Your task to perform on an android device: Open Yahoo.com Image 0: 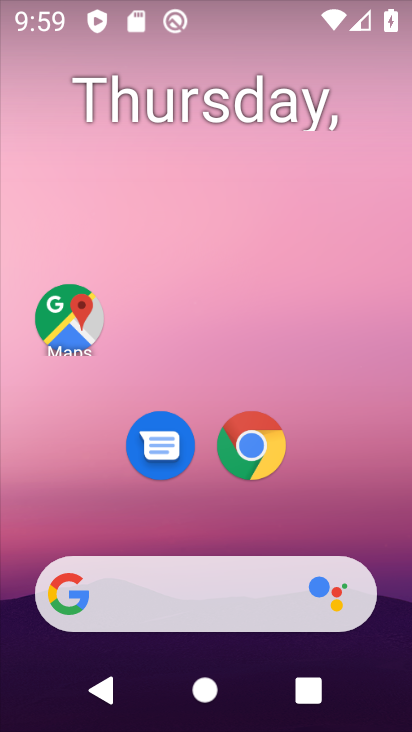
Step 0: click (241, 441)
Your task to perform on an android device: Open Yahoo.com Image 1: 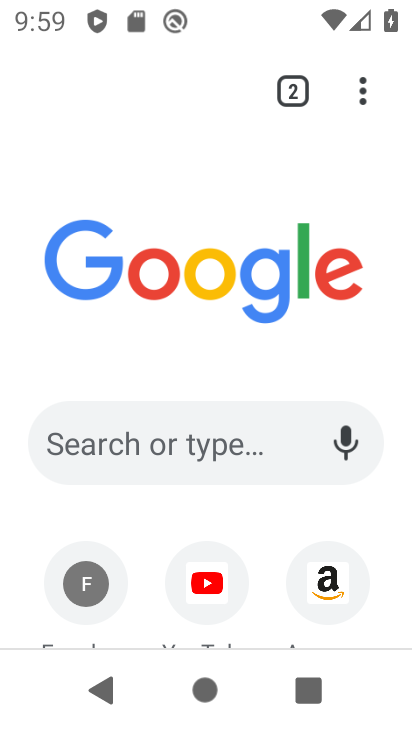
Step 1: drag from (224, 547) to (274, 193)
Your task to perform on an android device: Open Yahoo.com Image 2: 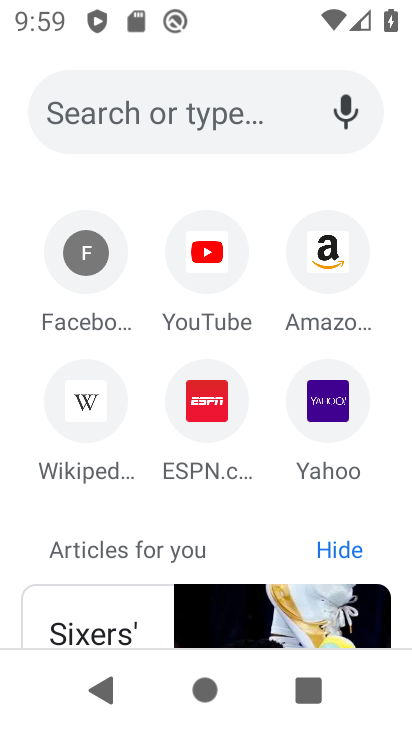
Step 2: click (308, 395)
Your task to perform on an android device: Open Yahoo.com Image 3: 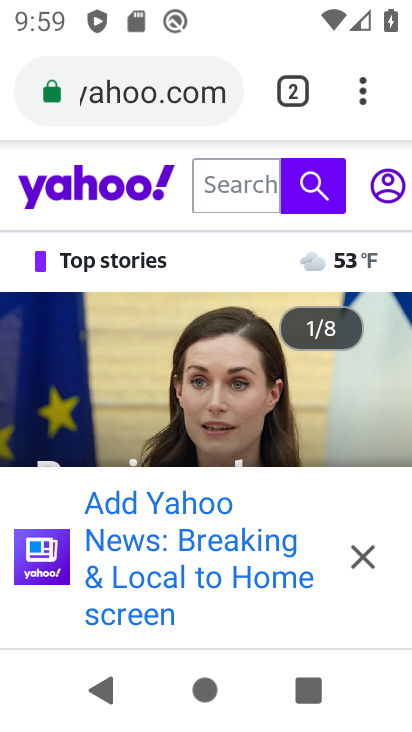
Step 3: click (360, 554)
Your task to perform on an android device: Open Yahoo.com Image 4: 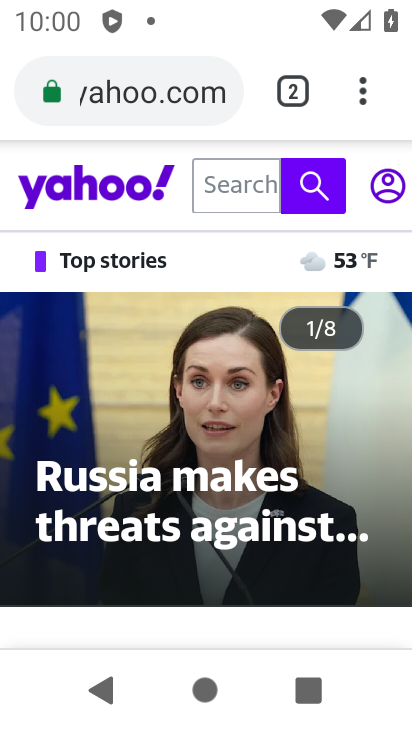
Step 4: task complete